Your task to perform on an android device: Go to display settings Image 0: 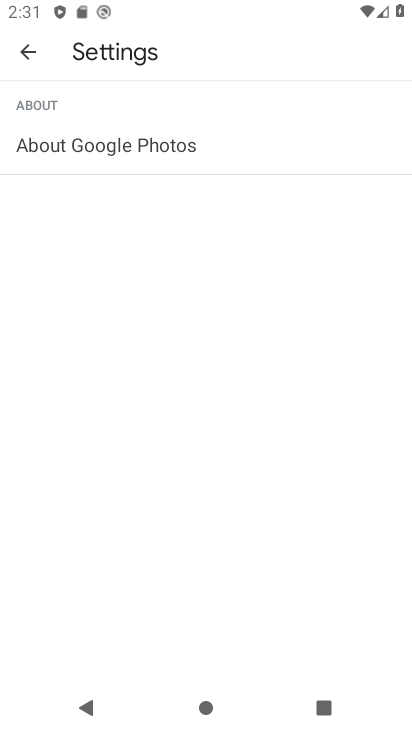
Step 0: press home button
Your task to perform on an android device: Go to display settings Image 1: 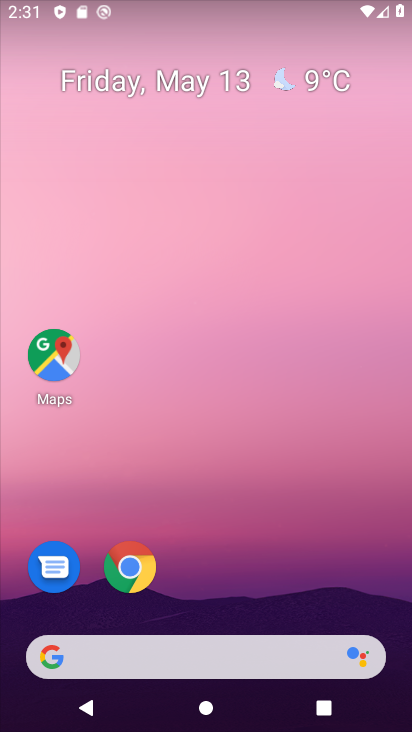
Step 1: drag from (283, 559) to (288, 6)
Your task to perform on an android device: Go to display settings Image 2: 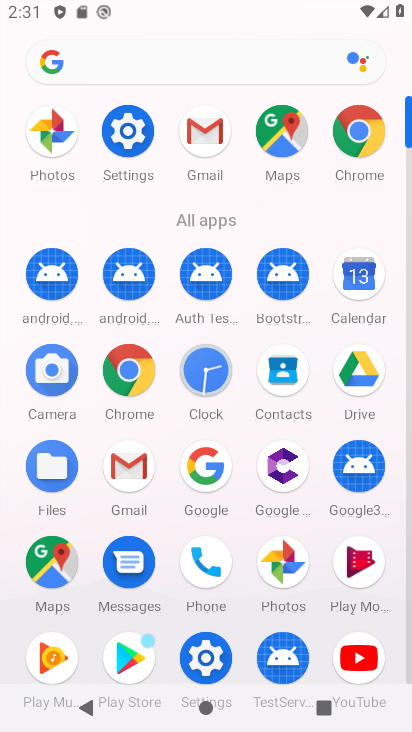
Step 2: click (127, 142)
Your task to perform on an android device: Go to display settings Image 3: 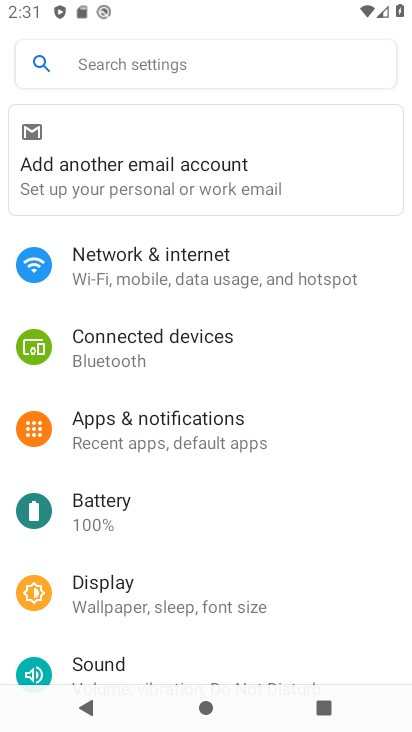
Step 3: click (114, 586)
Your task to perform on an android device: Go to display settings Image 4: 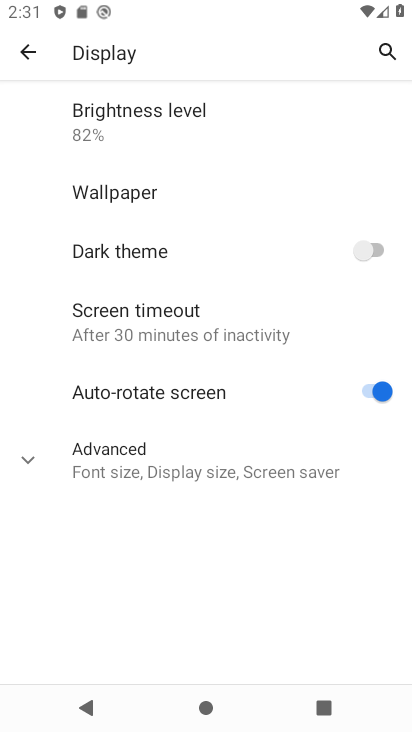
Step 4: task complete